Your task to perform on an android device: Open Chrome and go to settings Image 0: 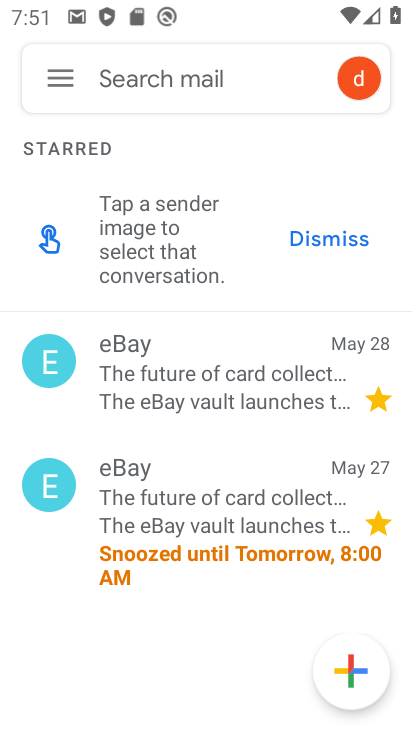
Step 0: press home button
Your task to perform on an android device: Open Chrome and go to settings Image 1: 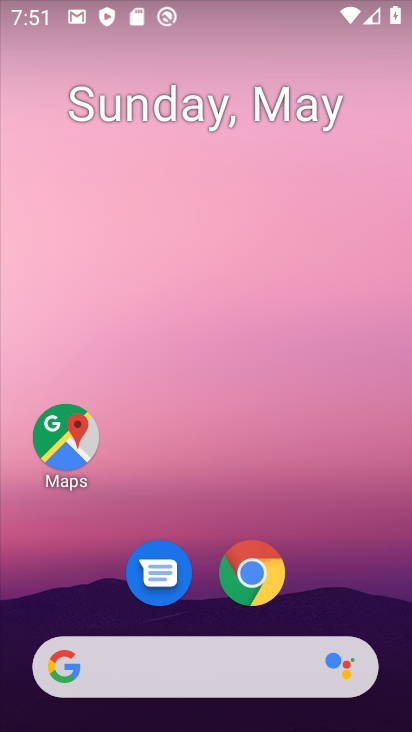
Step 1: click (268, 571)
Your task to perform on an android device: Open Chrome and go to settings Image 2: 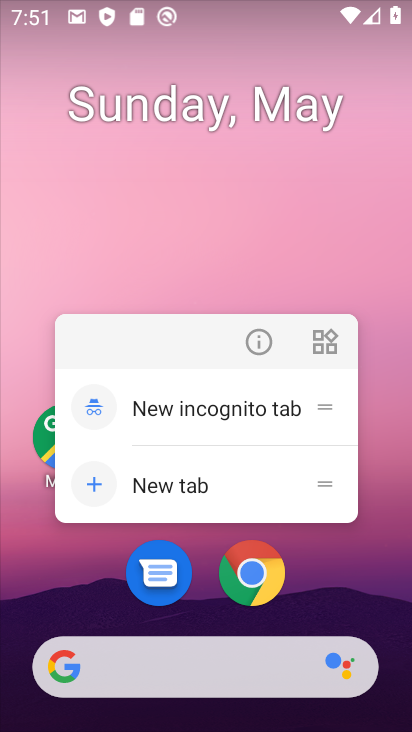
Step 2: click (268, 571)
Your task to perform on an android device: Open Chrome and go to settings Image 3: 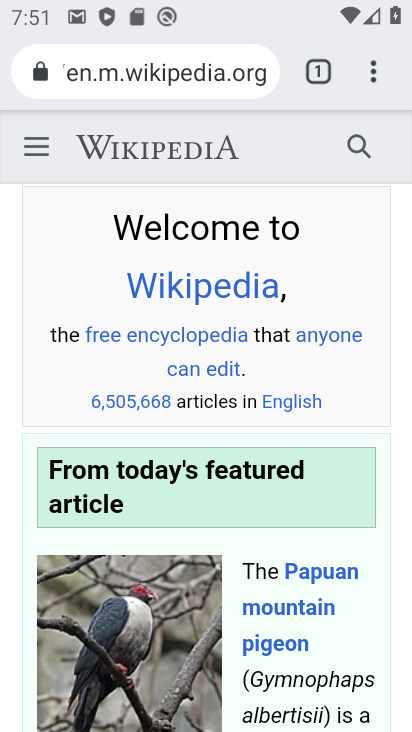
Step 3: click (373, 74)
Your task to perform on an android device: Open Chrome and go to settings Image 4: 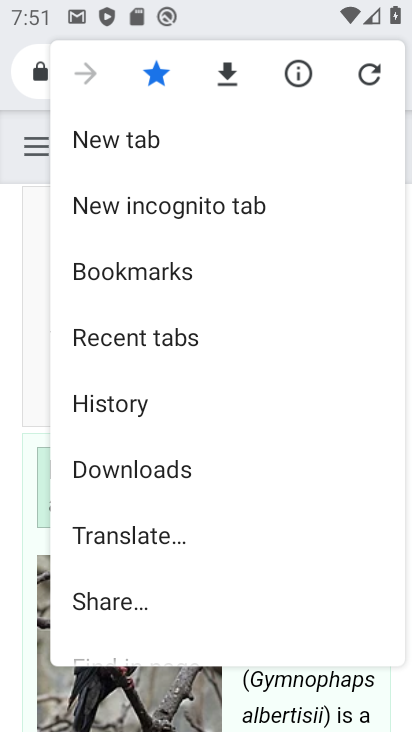
Step 4: drag from (284, 477) to (297, 219)
Your task to perform on an android device: Open Chrome and go to settings Image 5: 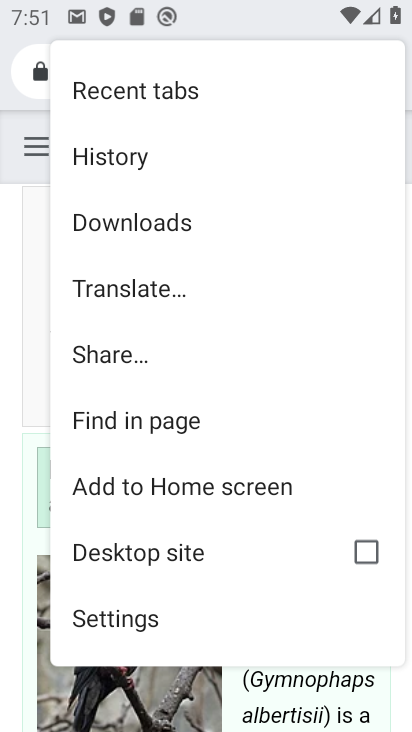
Step 5: click (196, 612)
Your task to perform on an android device: Open Chrome and go to settings Image 6: 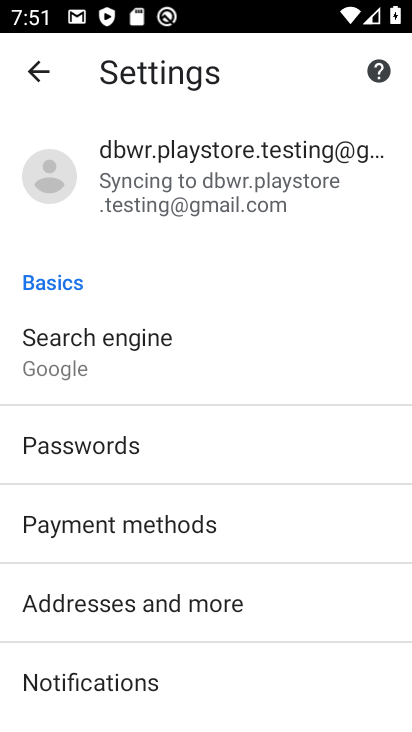
Step 6: task complete